Your task to perform on an android device: Search for a nightstand on IKEA. Image 0: 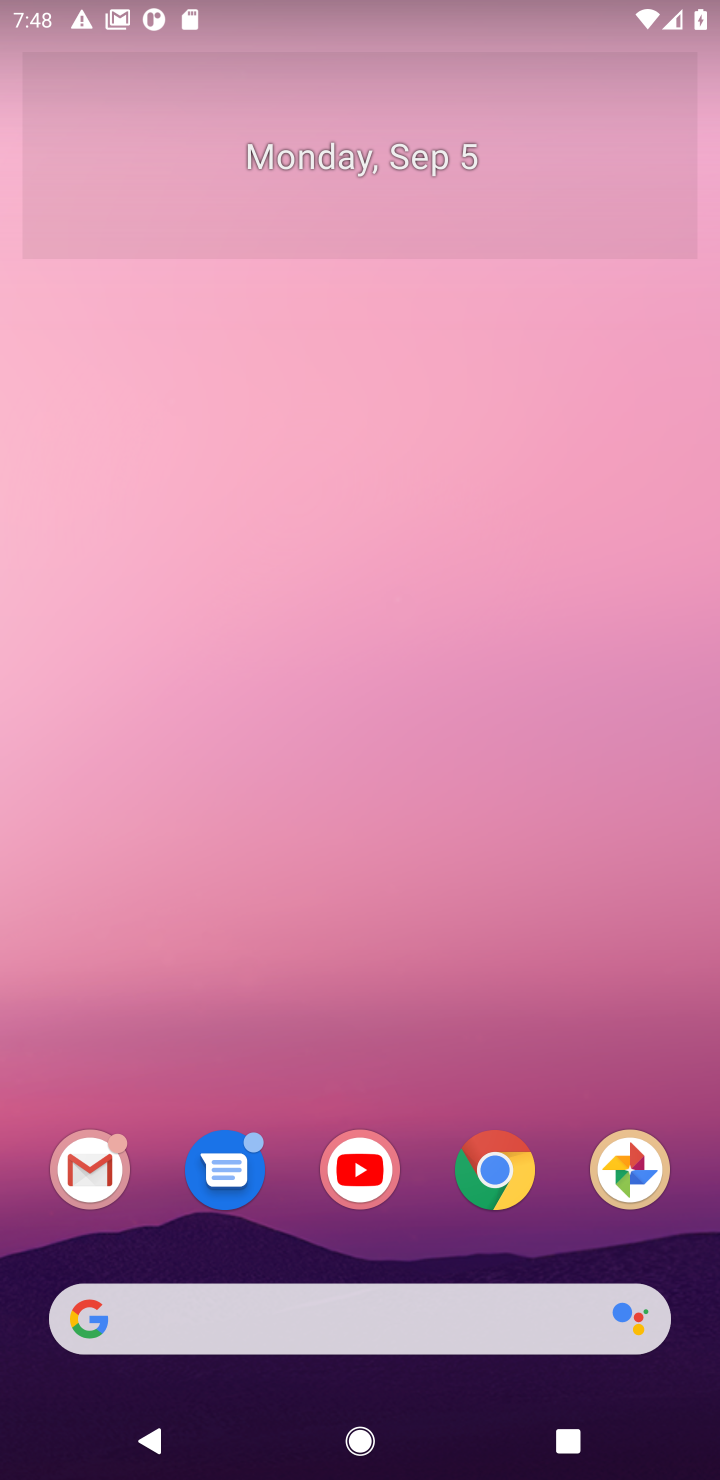
Step 0: click (486, 1178)
Your task to perform on an android device: Search for a nightstand on IKEA. Image 1: 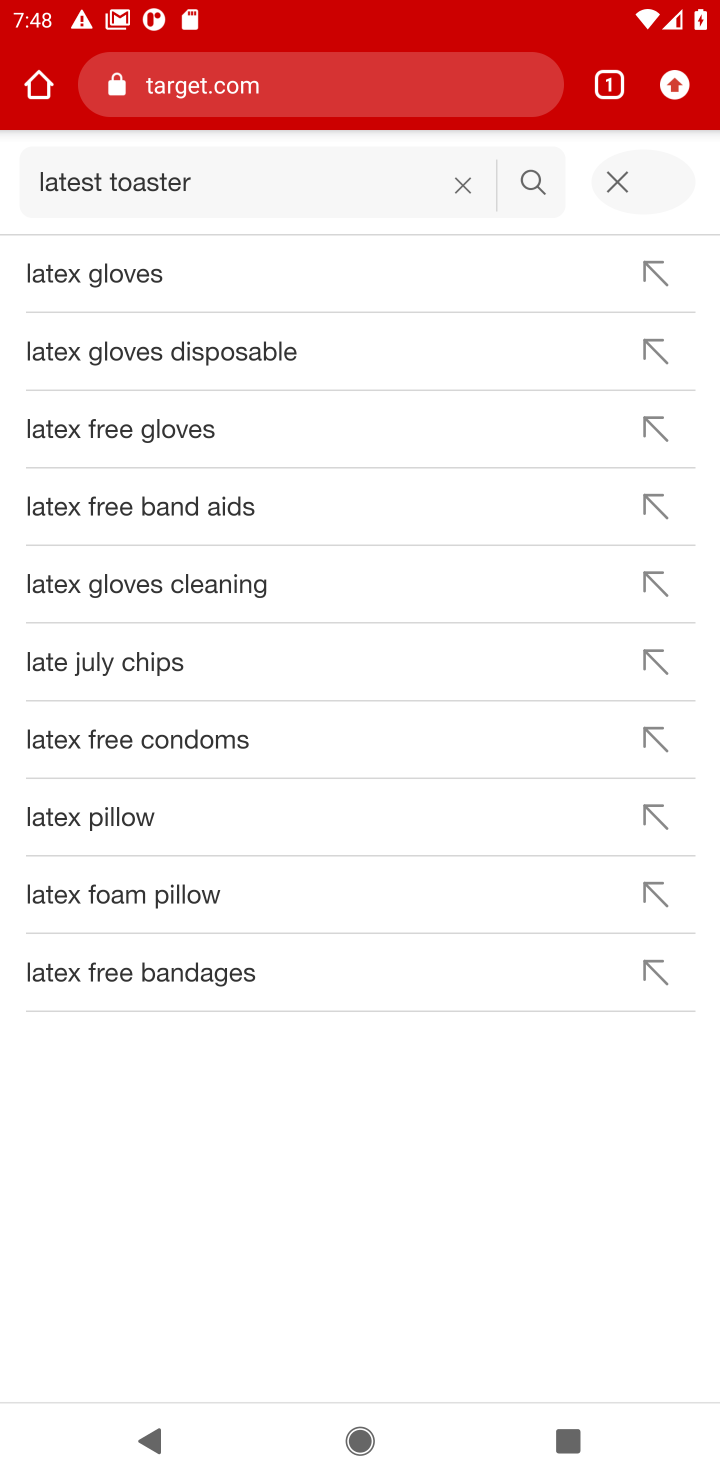
Step 1: click (352, 83)
Your task to perform on an android device: Search for a nightstand on IKEA. Image 2: 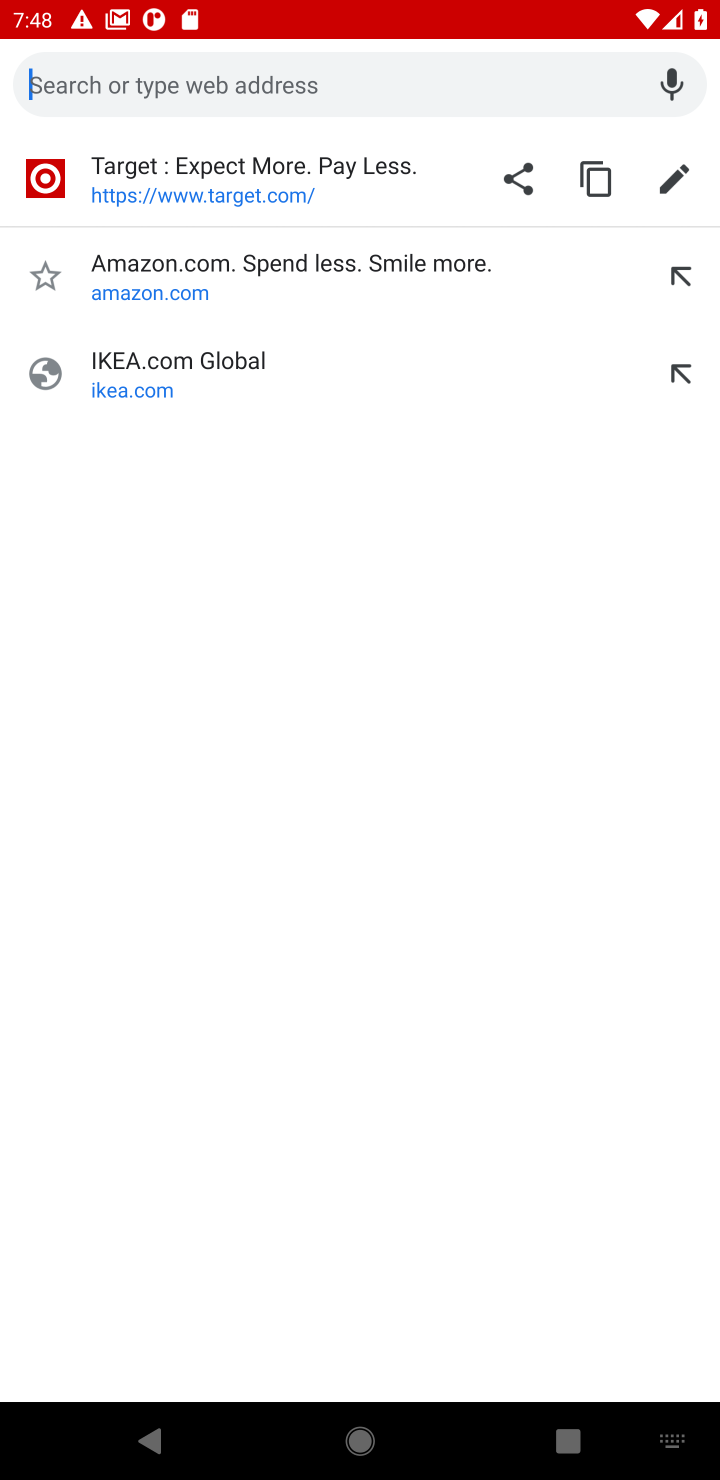
Step 2: type ""
Your task to perform on an android device: Search for a nightstand on IKEA. Image 3: 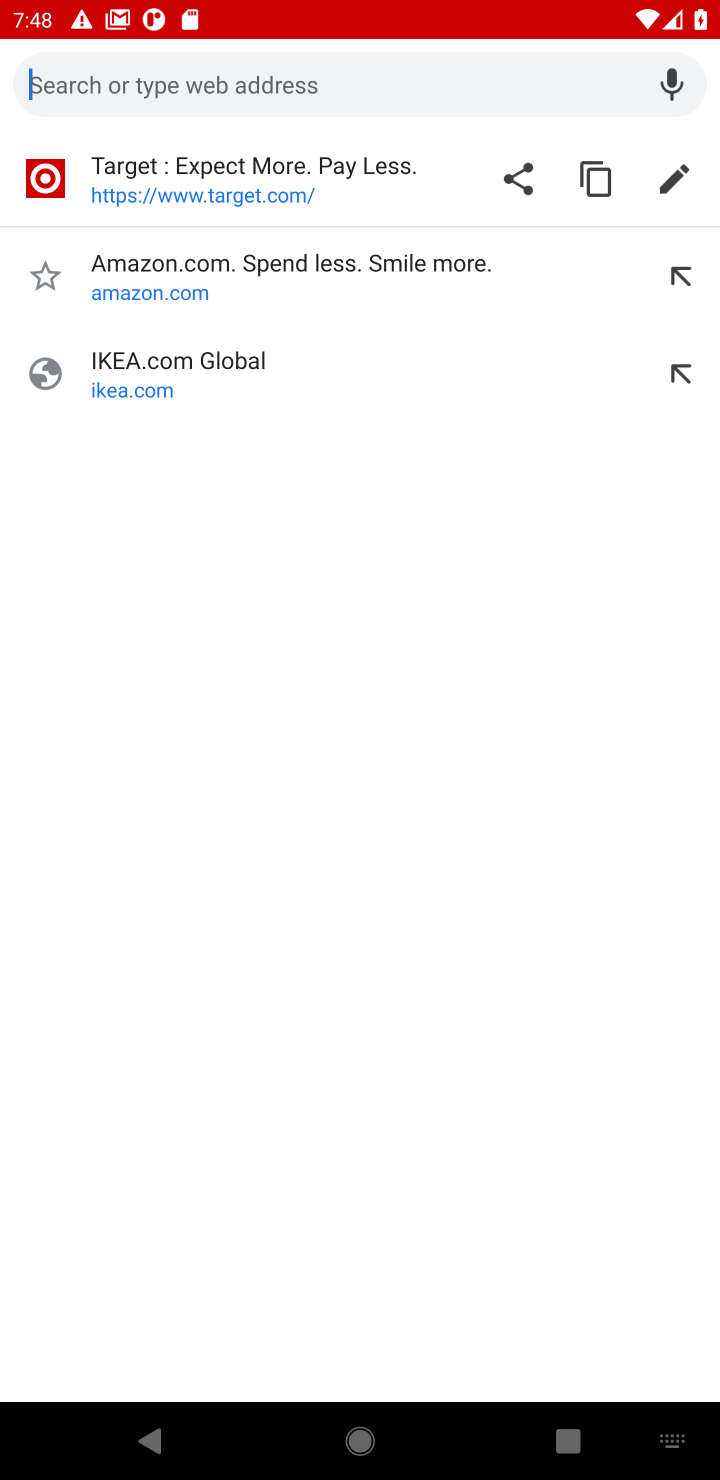
Step 3: type "Ikea"
Your task to perform on an android device: Search for a nightstand on IKEA. Image 4: 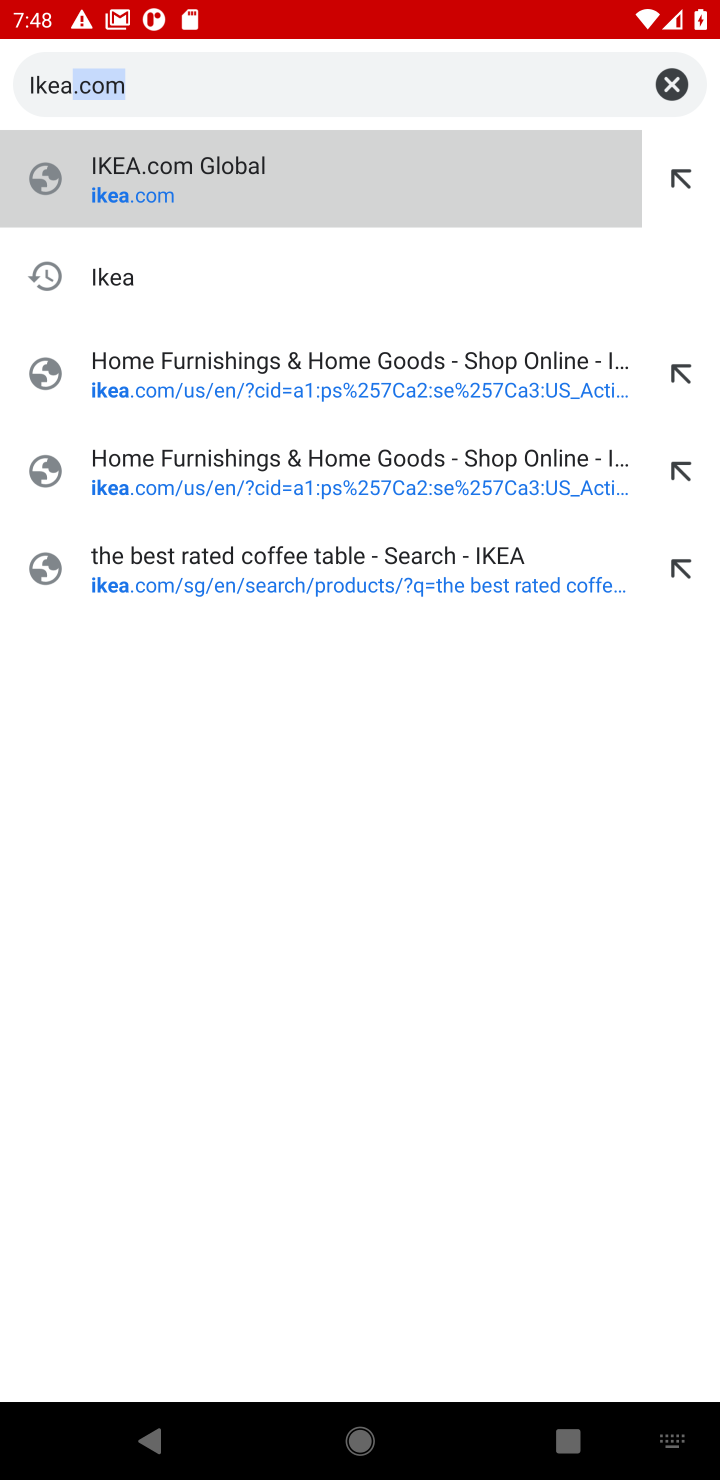
Step 4: click (296, 196)
Your task to perform on an android device: Search for a nightstand on IKEA. Image 5: 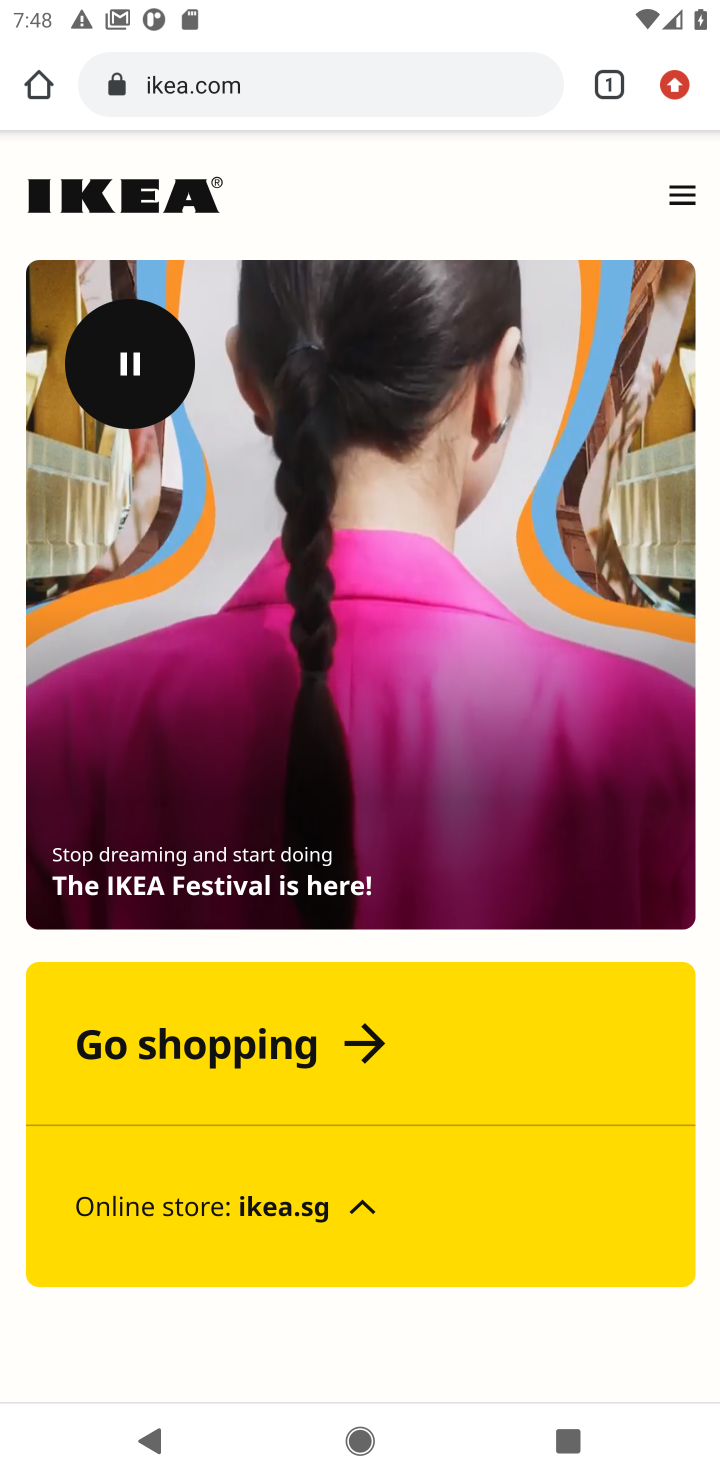
Step 5: click (236, 1065)
Your task to perform on an android device: Search for a nightstand on IKEA. Image 6: 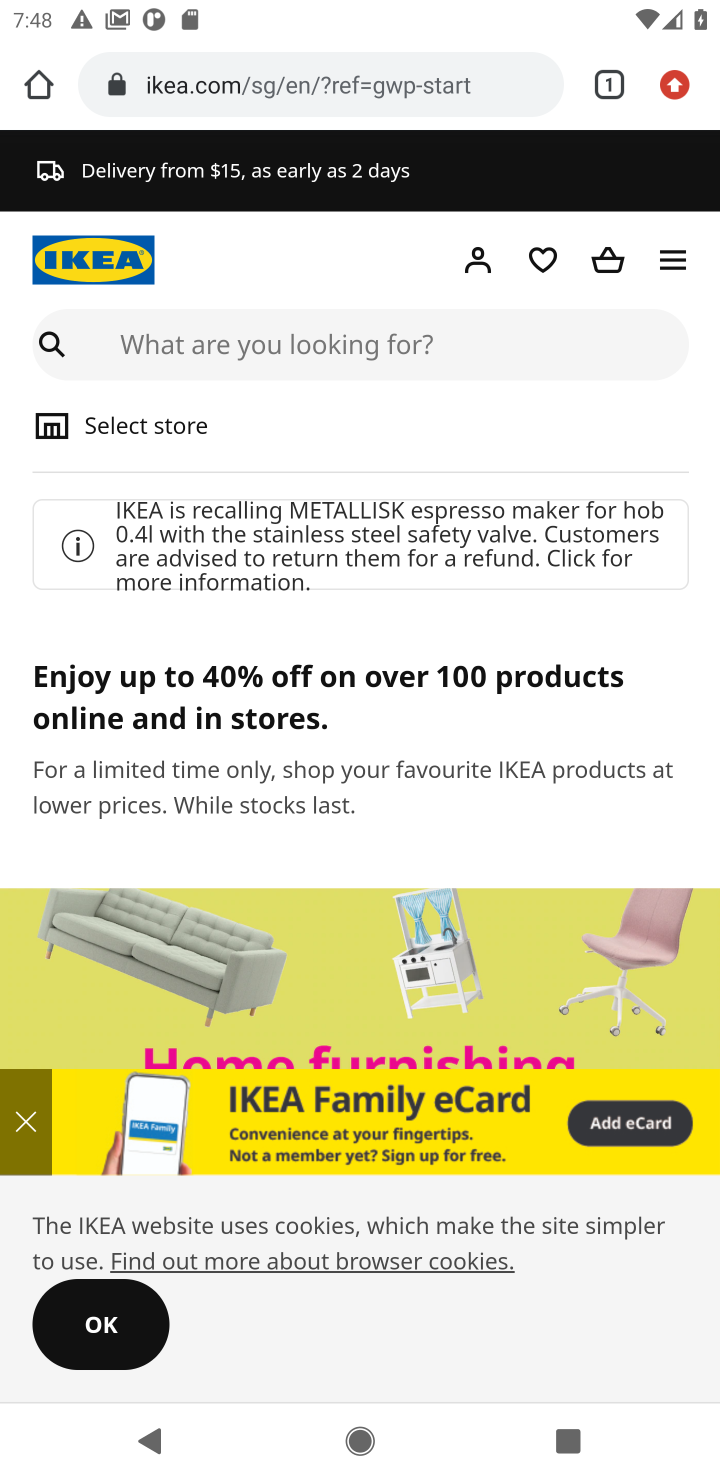
Step 6: click (423, 339)
Your task to perform on an android device: Search for a nightstand on IKEA. Image 7: 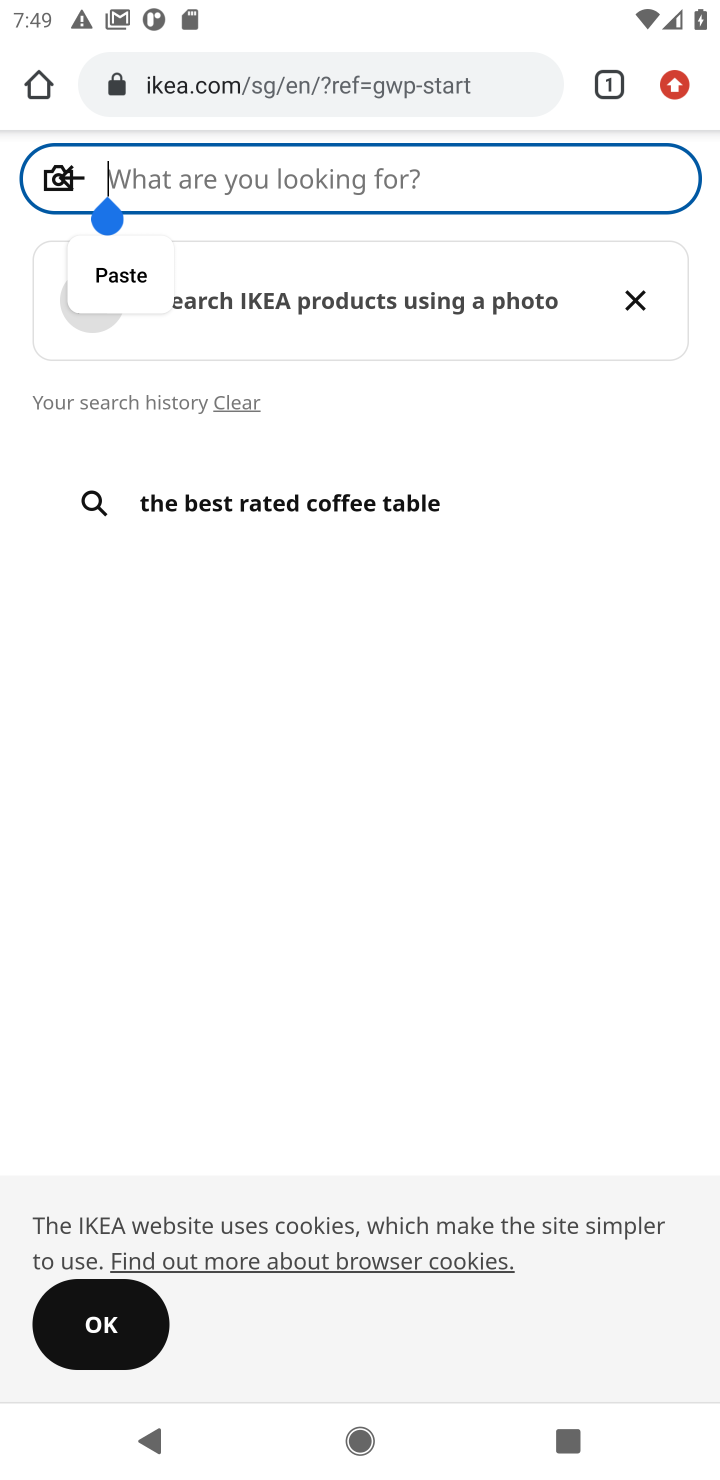
Step 7: type "nightstand "
Your task to perform on an android device: Search for a nightstand on IKEA. Image 8: 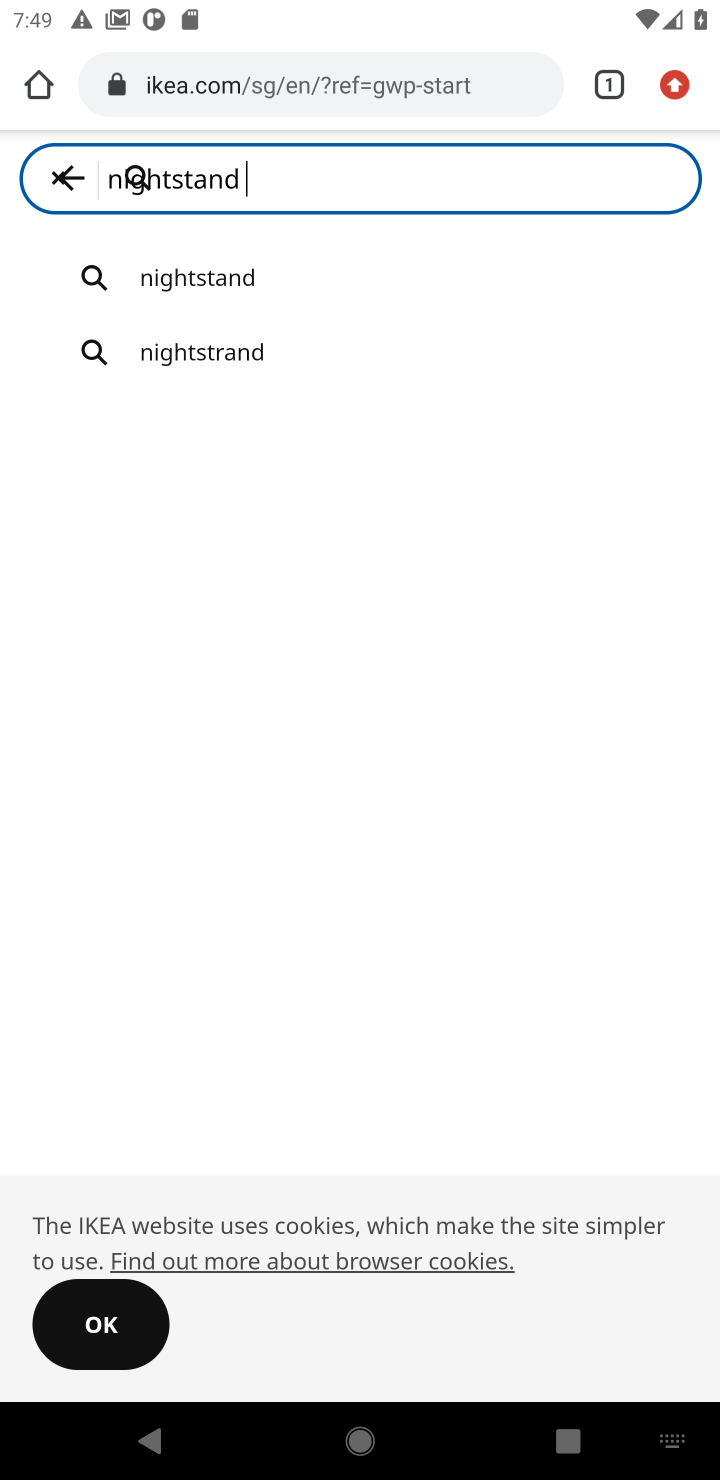
Step 8: click (225, 287)
Your task to perform on an android device: Search for a nightstand on IKEA. Image 9: 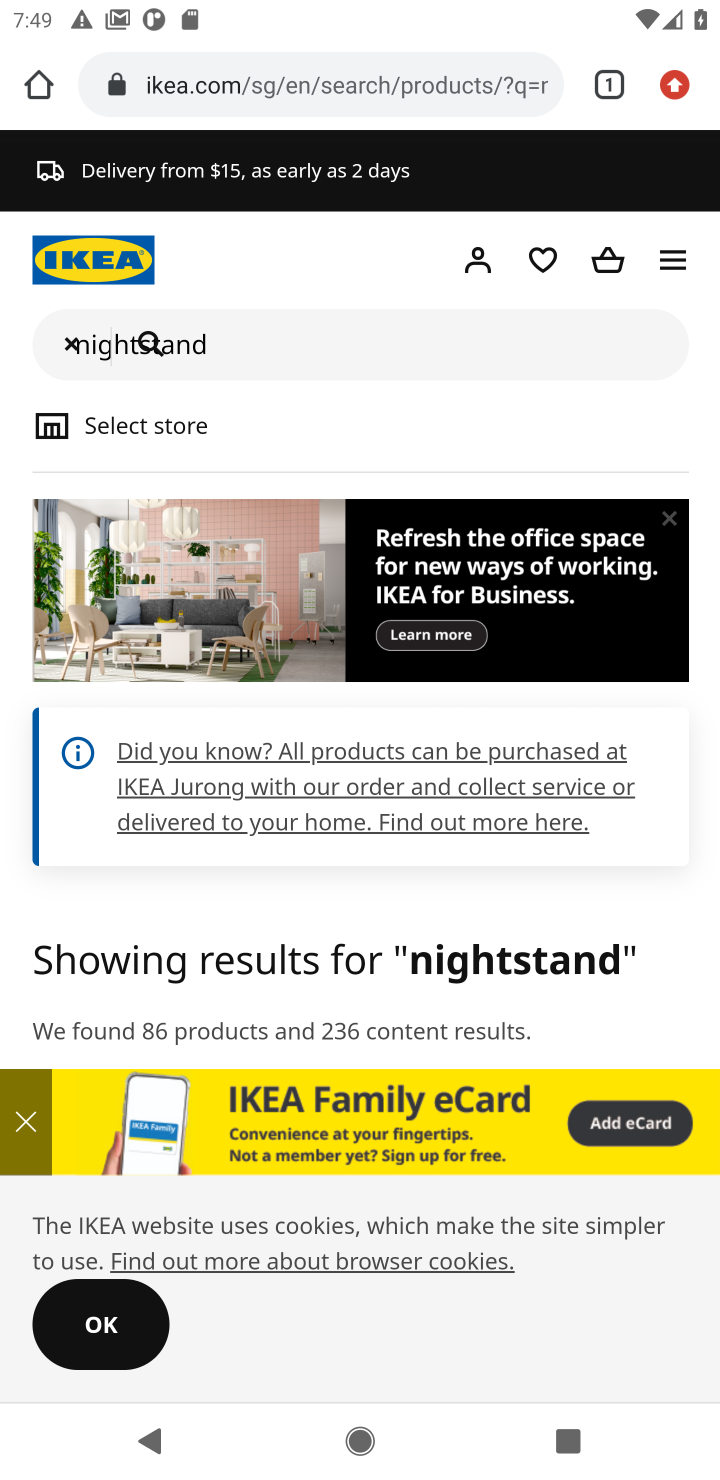
Step 9: task complete